Your task to perform on an android device: Show the shopping cart on bestbuy.com. Search for razer huntsman on bestbuy.com, select the first entry, add it to the cart, then select checkout. Image 0: 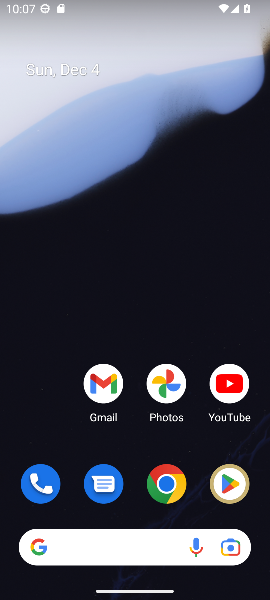
Step 0: click (167, 487)
Your task to perform on an android device: Show the shopping cart on bestbuy.com. Search for razer huntsman on bestbuy.com, select the first entry, add it to the cart, then select checkout. Image 1: 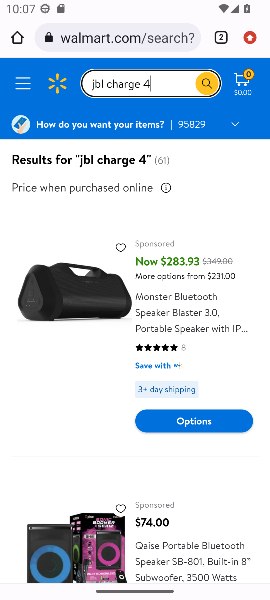
Step 1: click (128, 43)
Your task to perform on an android device: Show the shopping cart on bestbuy.com. Search for razer huntsman on bestbuy.com, select the first entry, add it to the cart, then select checkout. Image 2: 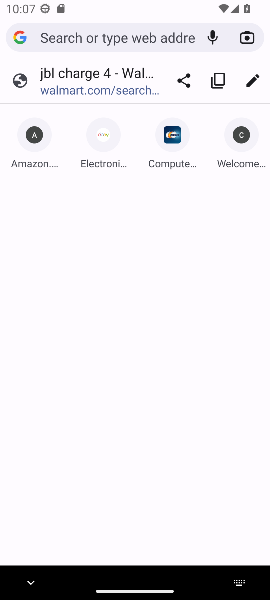
Step 2: type "bestbuy.com"
Your task to perform on an android device: Show the shopping cart on bestbuy.com. Search for razer huntsman on bestbuy.com, select the first entry, add it to the cart, then select checkout. Image 3: 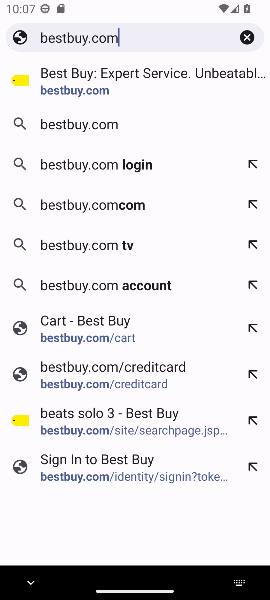
Step 3: click (71, 93)
Your task to perform on an android device: Show the shopping cart on bestbuy.com. Search for razer huntsman on bestbuy.com, select the first entry, add it to the cart, then select checkout. Image 4: 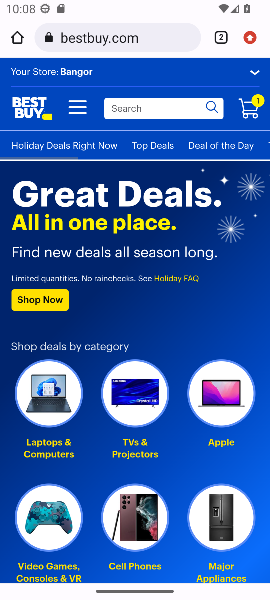
Step 4: click (253, 110)
Your task to perform on an android device: Show the shopping cart on bestbuy.com. Search for razer huntsman on bestbuy.com, select the first entry, add it to the cart, then select checkout. Image 5: 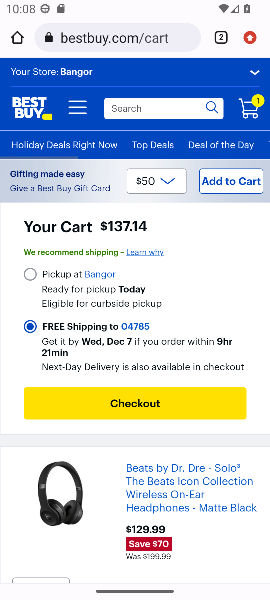
Step 5: click (143, 113)
Your task to perform on an android device: Show the shopping cart on bestbuy.com. Search for razer huntsman on bestbuy.com, select the first entry, add it to the cart, then select checkout. Image 6: 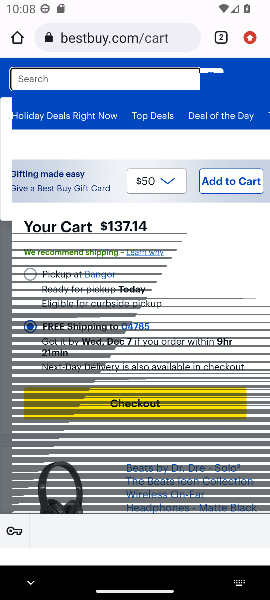
Step 6: type "razer huntsman"
Your task to perform on an android device: Show the shopping cart on bestbuy.com. Search for razer huntsman on bestbuy.com, select the first entry, add it to the cart, then select checkout. Image 7: 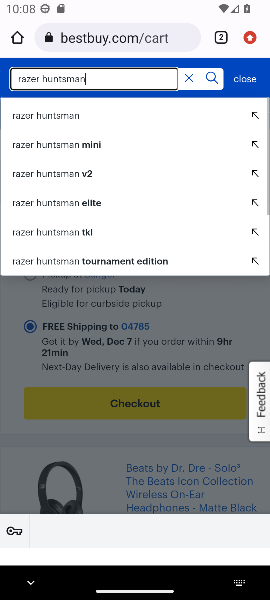
Step 7: click (73, 116)
Your task to perform on an android device: Show the shopping cart on bestbuy.com. Search for razer huntsman on bestbuy.com, select the first entry, add it to the cart, then select checkout. Image 8: 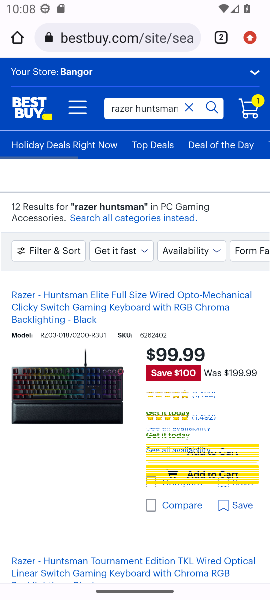
Step 8: click (180, 447)
Your task to perform on an android device: Show the shopping cart on bestbuy.com. Search for razer huntsman on bestbuy.com, select the first entry, add it to the cart, then select checkout. Image 9: 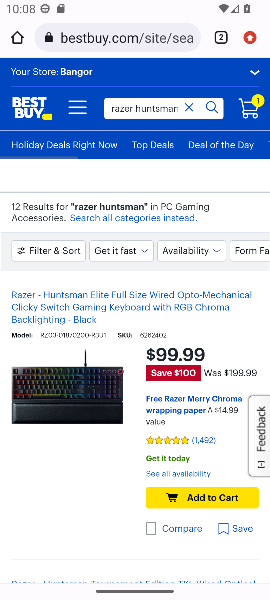
Step 9: click (178, 492)
Your task to perform on an android device: Show the shopping cart on bestbuy.com. Search for razer huntsman on bestbuy.com, select the first entry, add it to the cart, then select checkout. Image 10: 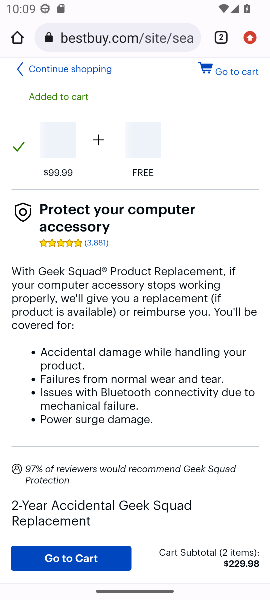
Step 10: click (236, 70)
Your task to perform on an android device: Show the shopping cart on bestbuy.com. Search for razer huntsman on bestbuy.com, select the first entry, add it to the cart, then select checkout. Image 11: 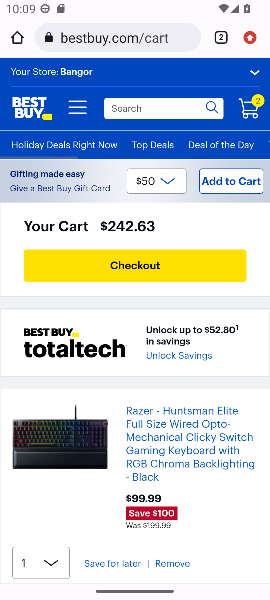
Step 11: click (117, 265)
Your task to perform on an android device: Show the shopping cart on bestbuy.com. Search for razer huntsman on bestbuy.com, select the first entry, add it to the cart, then select checkout. Image 12: 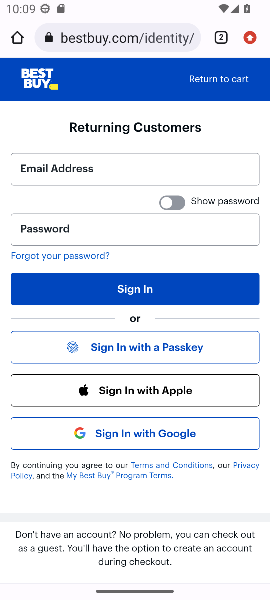
Step 12: task complete